Your task to perform on an android device: Go to Yahoo.com Image 0: 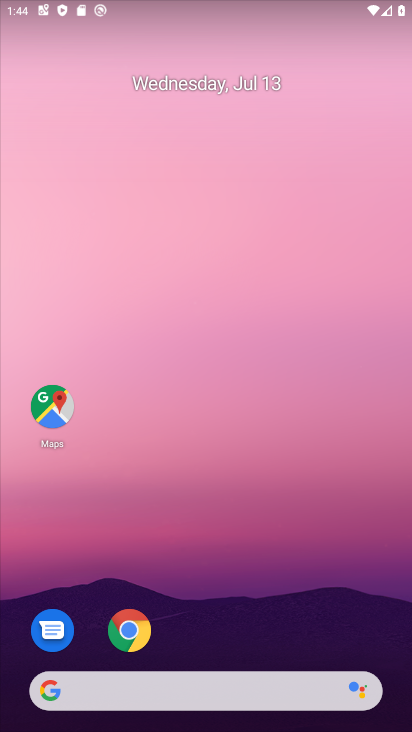
Step 0: drag from (326, 612) to (328, 127)
Your task to perform on an android device: Go to Yahoo.com Image 1: 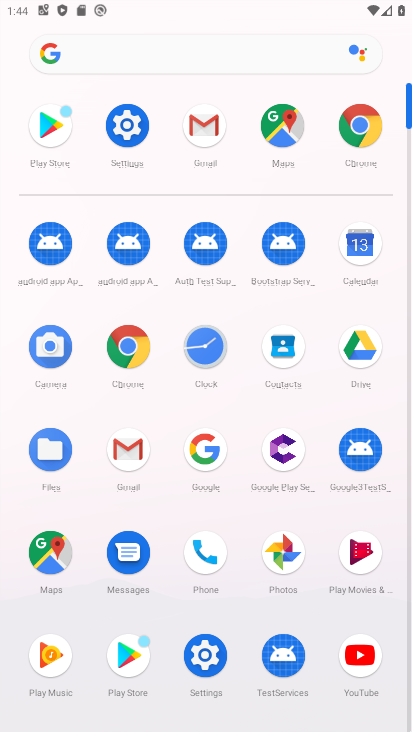
Step 1: click (131, 343)
Your task to perform on an android device: Go to Yahoo.com Image 2: 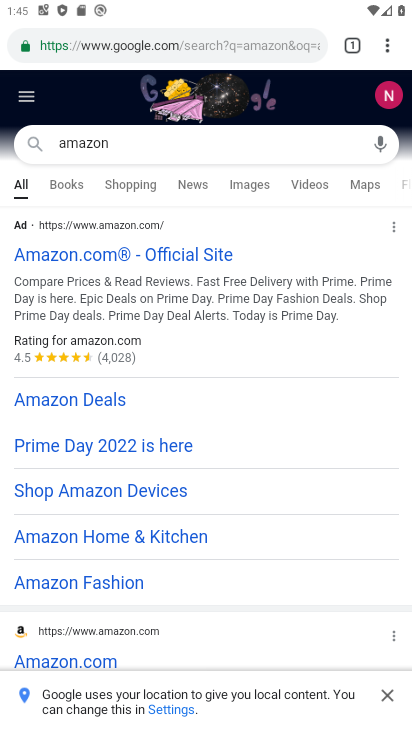
Step 2: click (227, 42)
Your task to perform on an android device: Go to Yahoo.com Image 3: 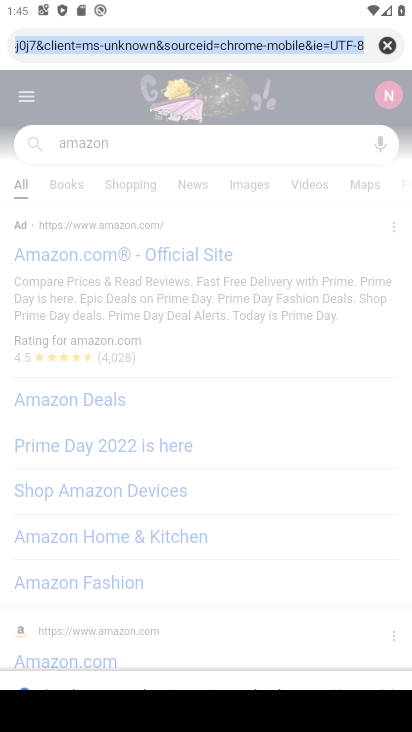
Step 3: type "yahoo.com"
Your task to perform on an android device: Go to Yahoo.com Image 4: 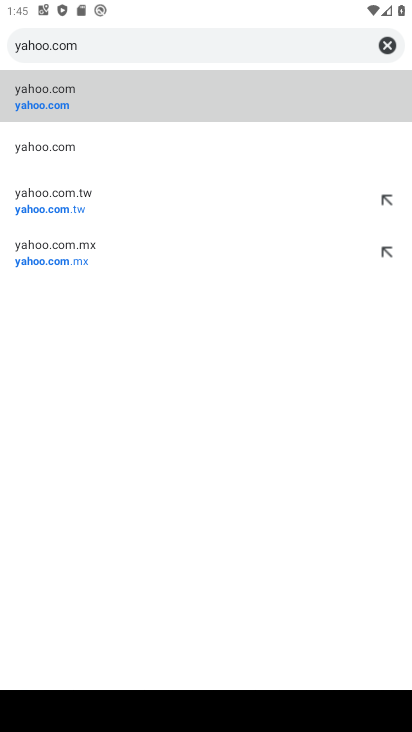
Step 4: click (174, 97)
Your task to perform on an android device: Go to Yahoo.com Image 5: 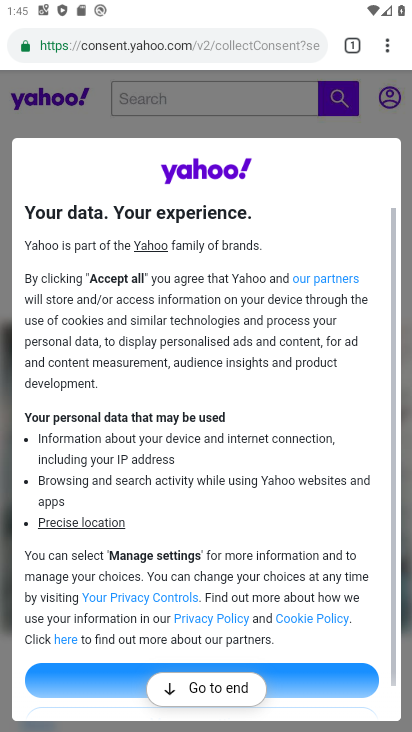
Step 5: task complete